Your task to perform on an android device: change the upload size in google photos Image 0: 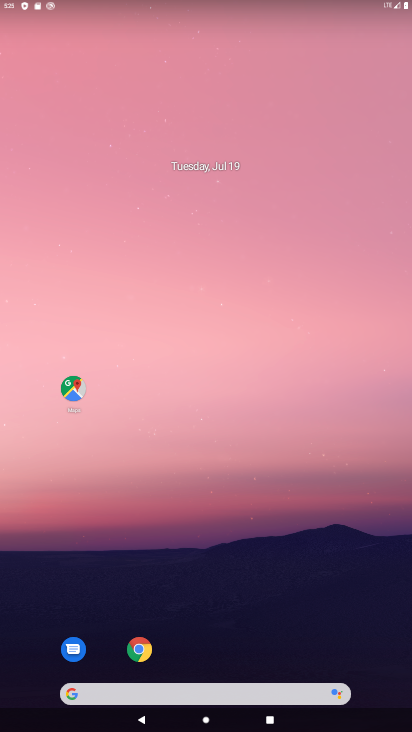
Step 0: drag from (292, 538) to (260, 79)
Your task to perform on an android device: change the upload size in google photos Image 1: 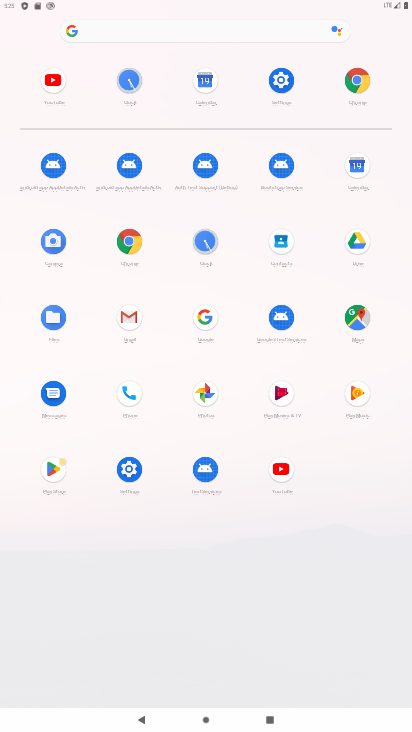
Step 1: click (201, 387)
Your task to perform on an android device: change the upload size in google photos Image 2: 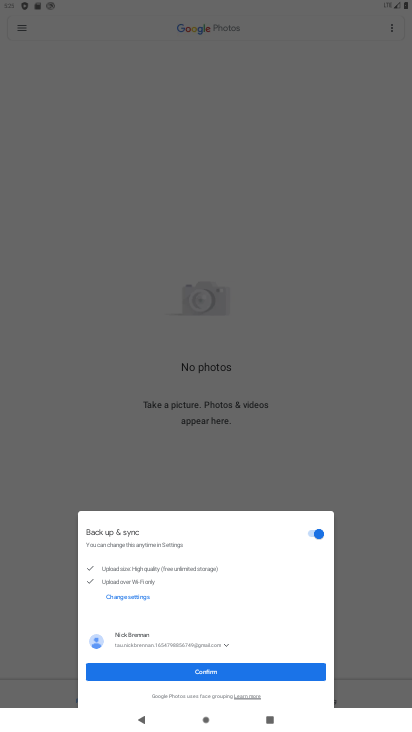
Step 2: click (244, 663)
Your task to perform on an android device: change the upload size in google photos Image 3: 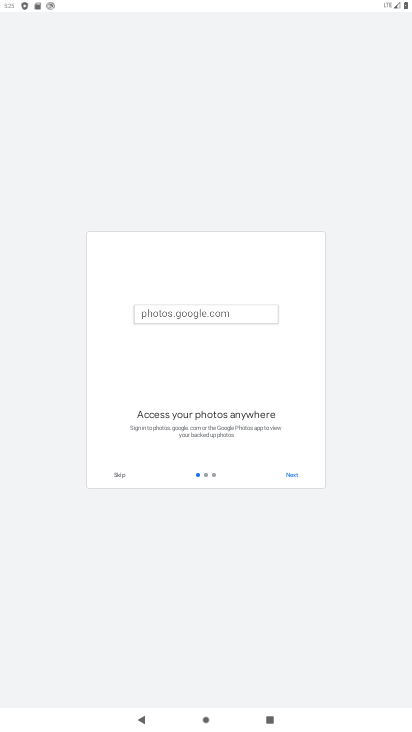
Step 3: click (293, 475)
Your task to perform on an android device: change the upload size in google photos Image 4: 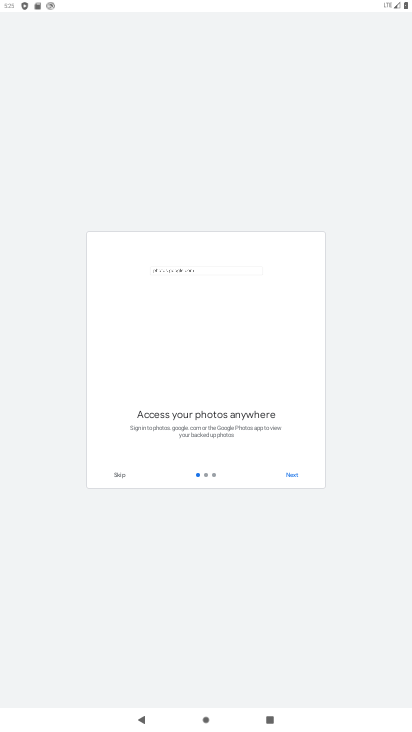
Step 4: click (293, 475)
Your task to perform on an android device: change the upload size in google photos Image 5: 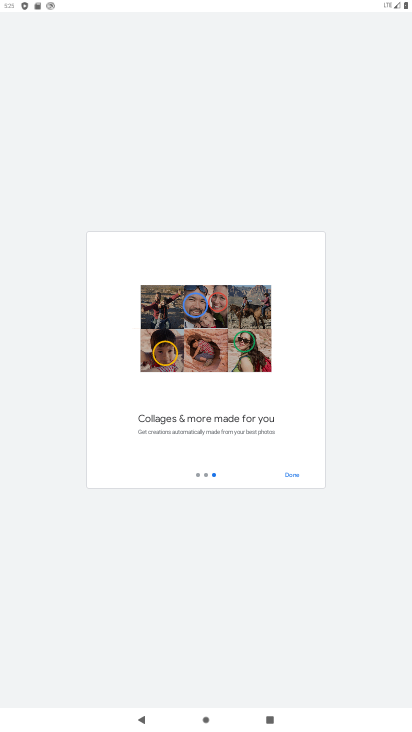
Step 5: click (295, 472)
Your task to perform on an android device: change the upload size in google photos Image 6: 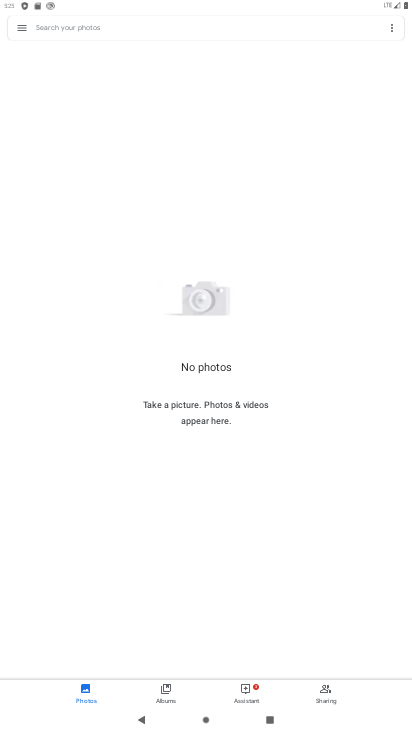
Step 6: click (20, 20)
Your task to perform on an android device: change the upload size in google photos Image 7: 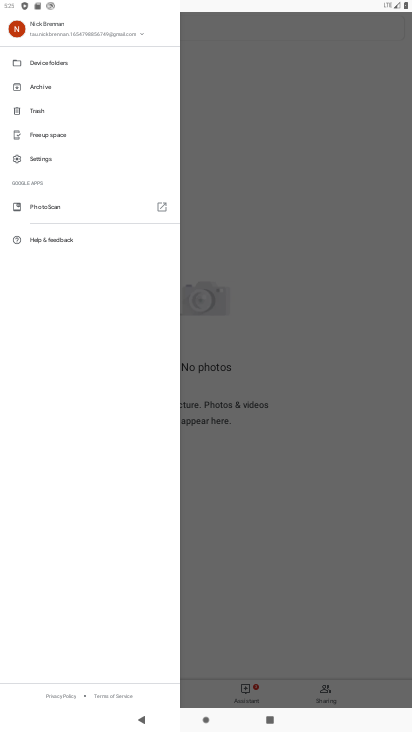
Step 7: click (49, 155)
Your task to perform on an android device: change the upload size in google photos Image 8: 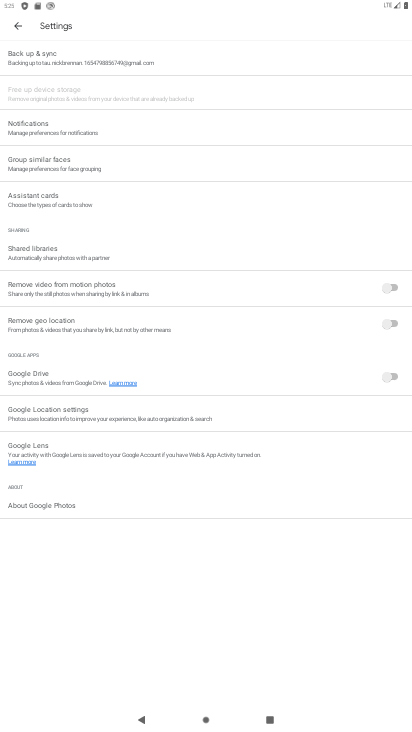
Step 8: click (76, 64)
Your task to perform on an android device: change the upload size in google photos Image 9: 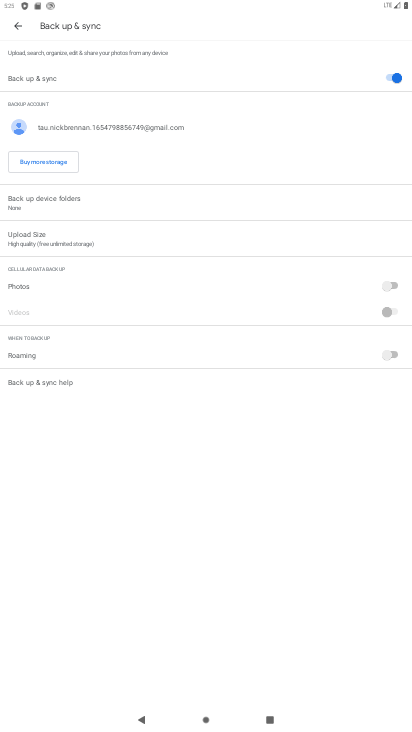
Step 9: click (126, 246)
Your task to perform on an android device: change the upload size in google photos Image 10: 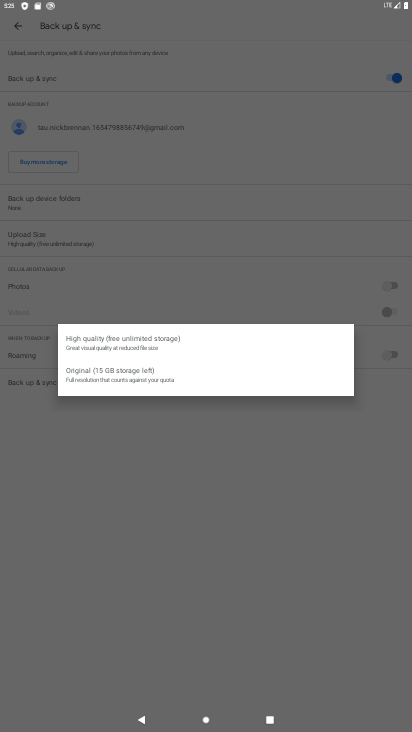
Step 10: click (154, 376)
Your task to perform on an android device: change the upload size in google photos Image 11: 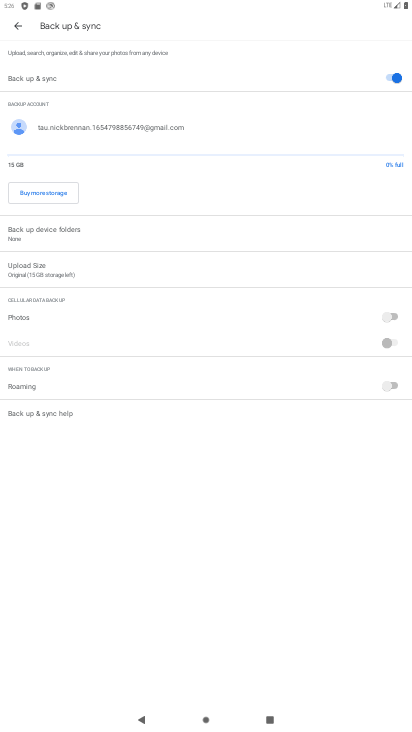
Step 11: task complete